Your task to perform on an android device: turn off translation in the chrome app Image 0: 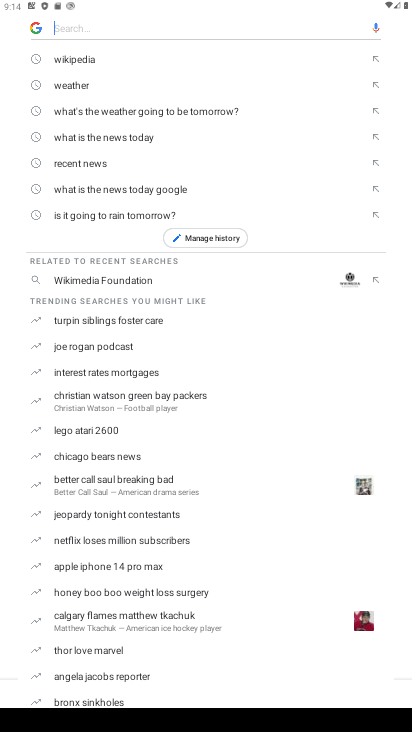
Step 0: press home button
Your task to perform on an android device: turn off translation in the chrome app Image 1: 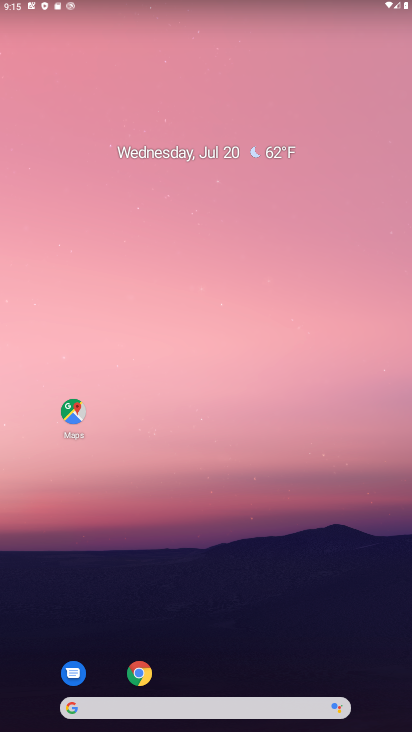
Step 1: click (145, 674)
Your task to perform on an android device: turn off translation in the chrome app Image 2: 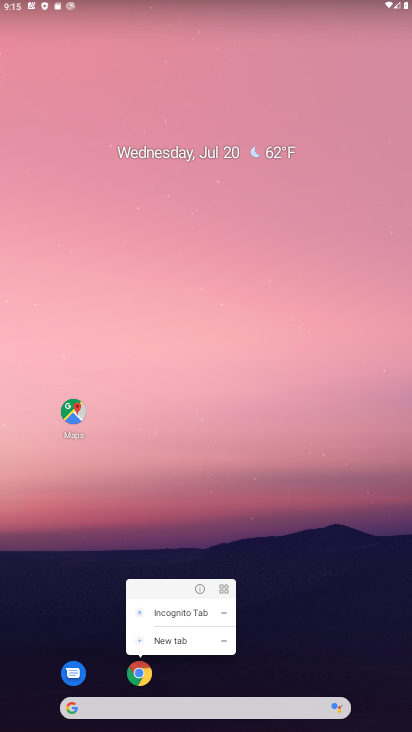
Step 2: click (137, 670)
Your task to perform on an android device: turn off translation in the chrome app Image 3: 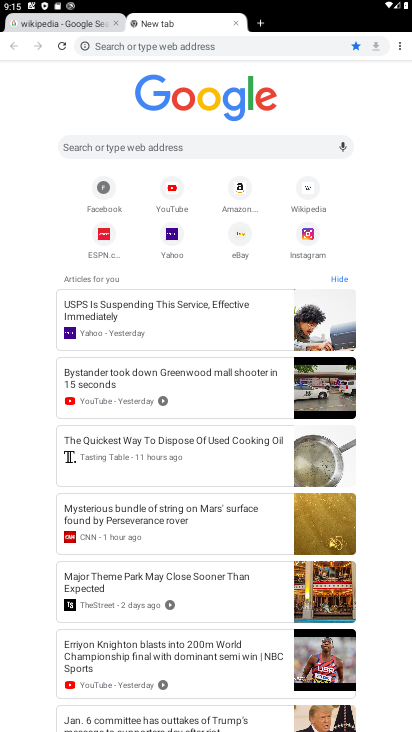
Step 3: click (401, 47)
Your task to perform on an android device: turn off translation in the chrome app Image 4: 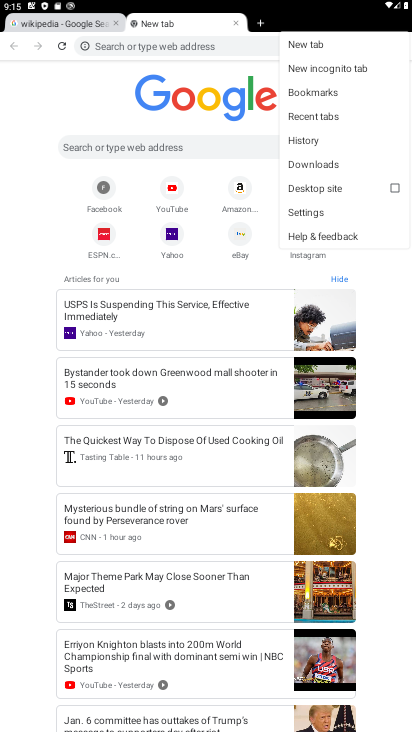
Step 4: click (307, 214)
Your task to perform on an android device: turn off translation in the chrome app Image 5: 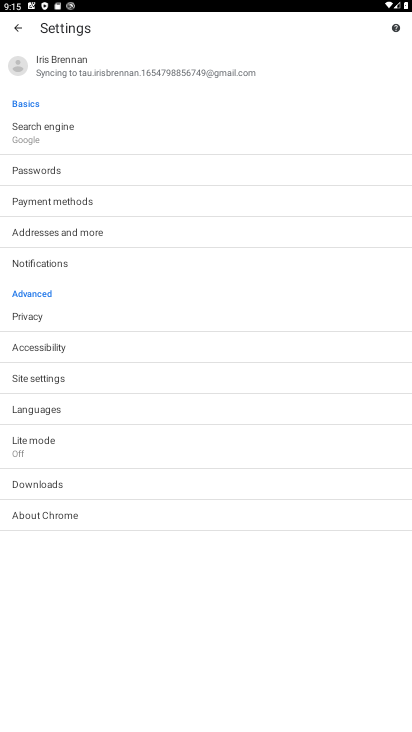
Step 5: click (63, 408)
Your task to perform on an android device: turn off translation in the chrome app Image 6: 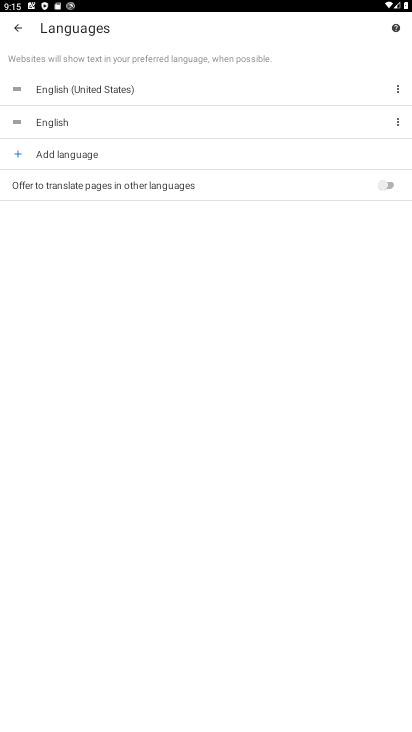
Step 6: task complete